Your task to perform on an android device: check the backup settings in the google photos Image 0: 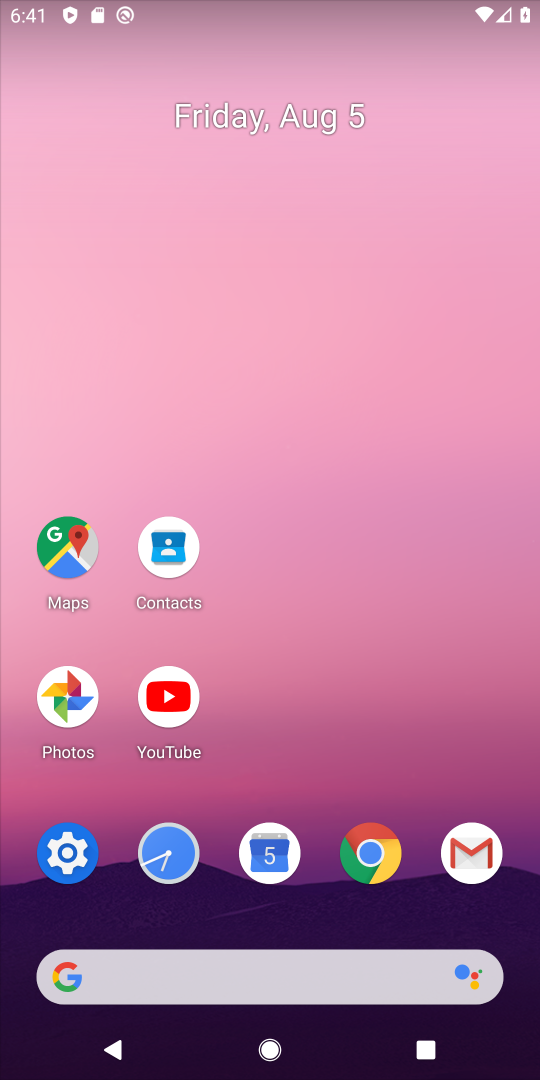
Step 0: click (66, 697)
Your task to perform on an android device: check the backup settings in the google photos Image 1: 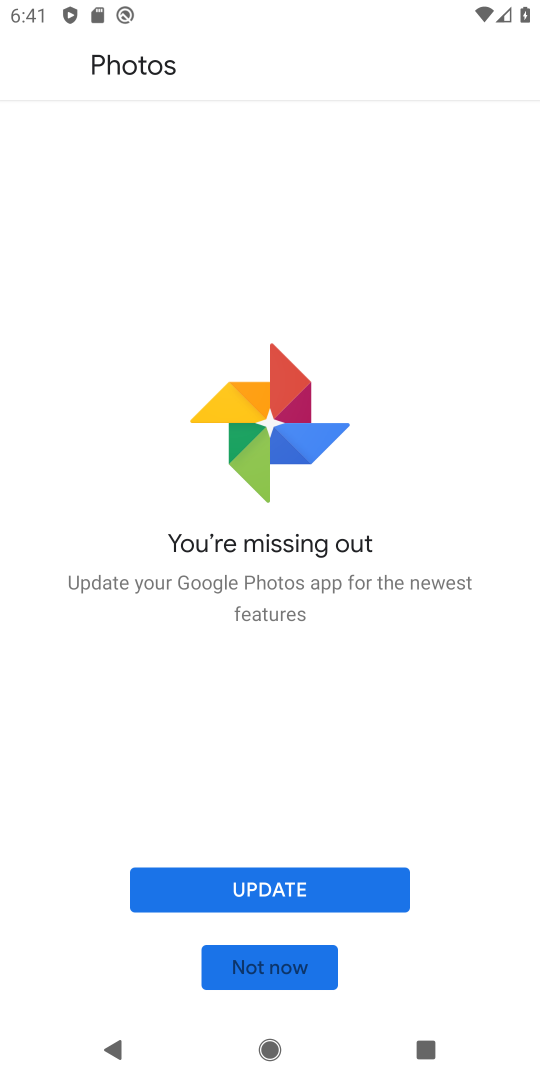
Step 1: click (271, 887)
Your task to perform on an android device: check the backup settings in the google photos Image 2: 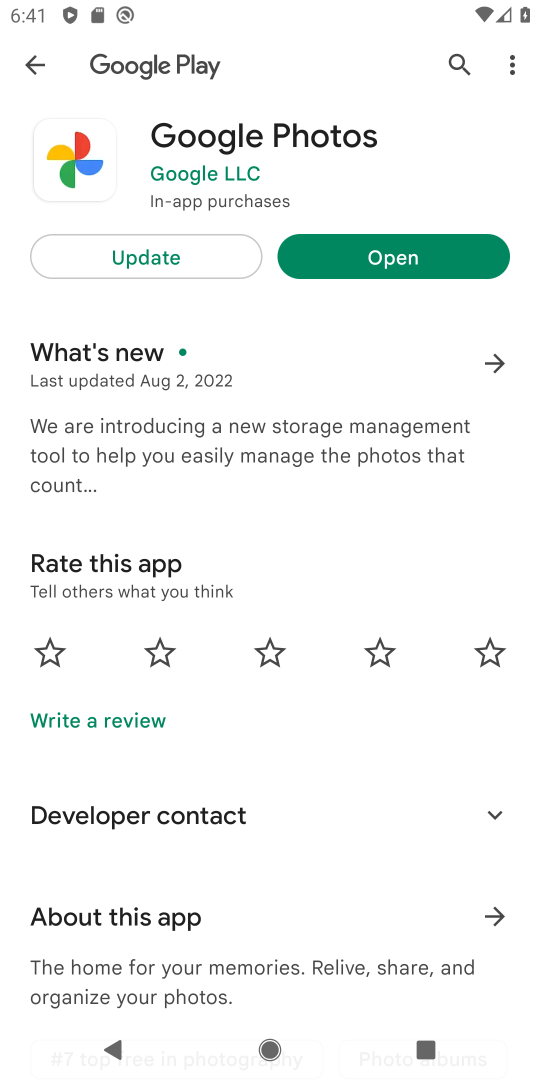
Step 2: click (134, 255)
Your task to perform on an android device: check the backup settings in the google photos Image 3: 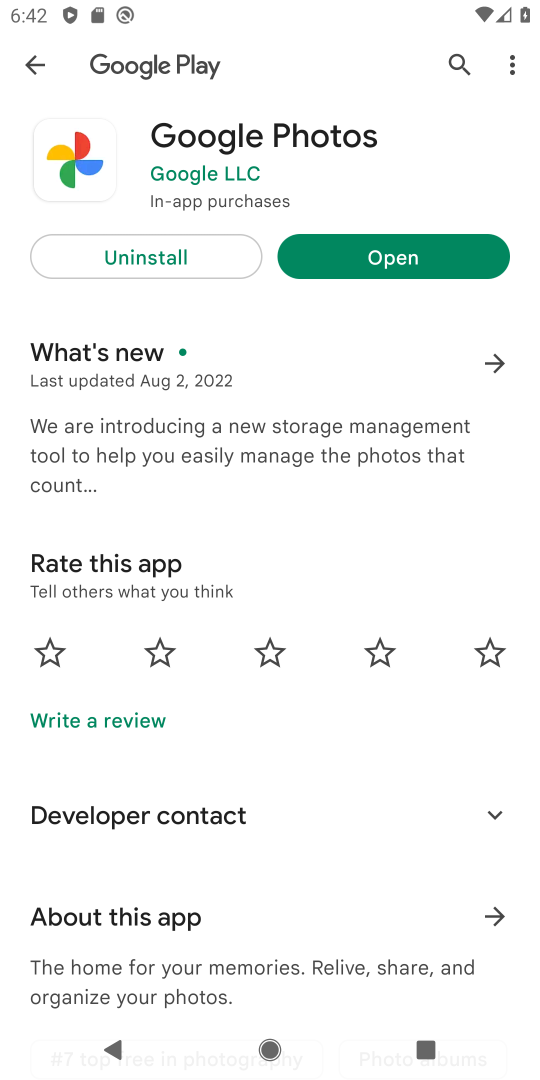
Step 3: click (344, 259)
Your task to perform on an android device: check the backup settings in the google photos Image 4: 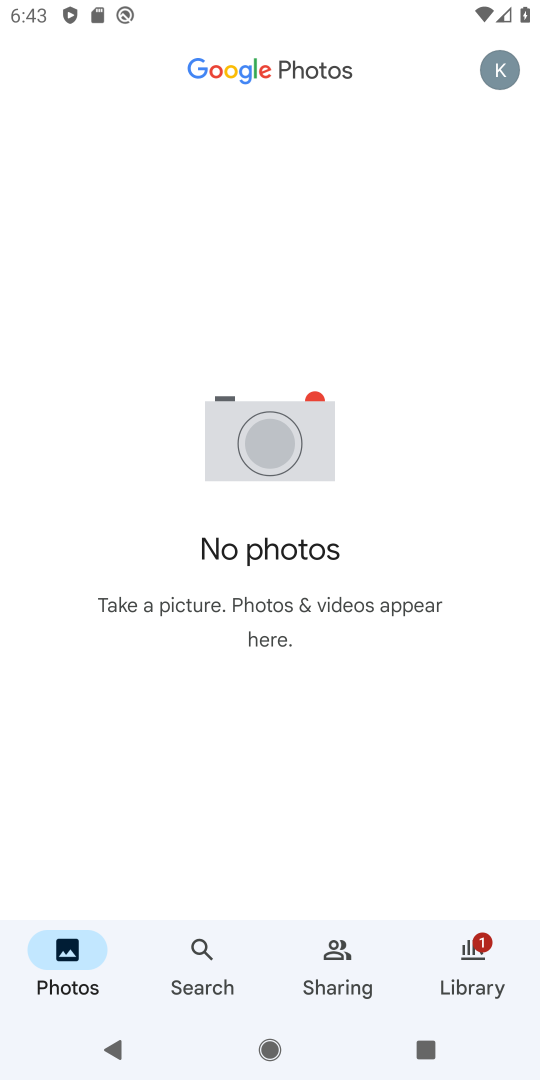
Step 4: click (507, 65)
Your task to perform on an android device: check the backup settings in the google photos Image 5: 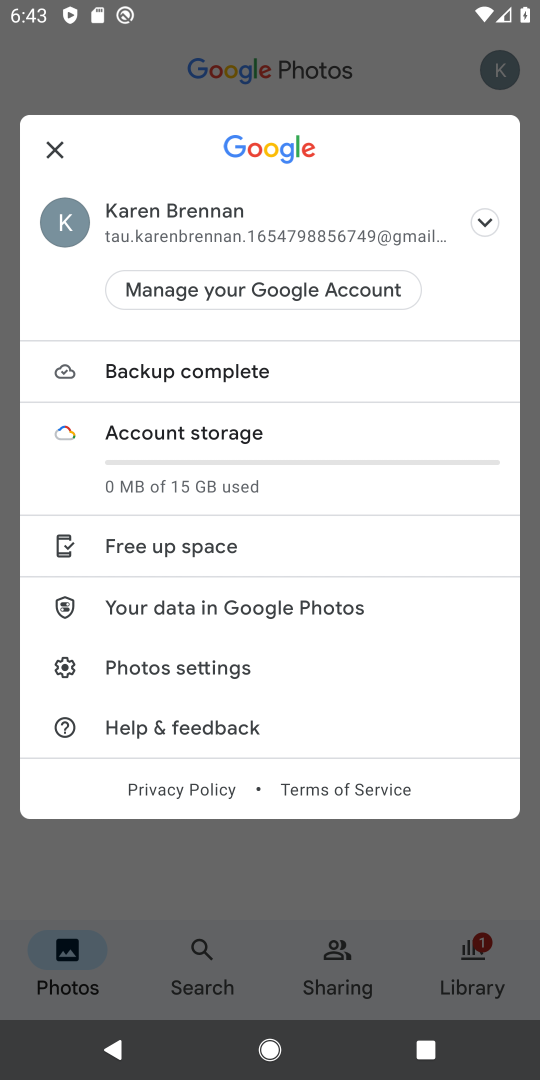
Step 5: click (189, 669)
Your task to perform on an android device: check the backup settings in the google photos Image 6: 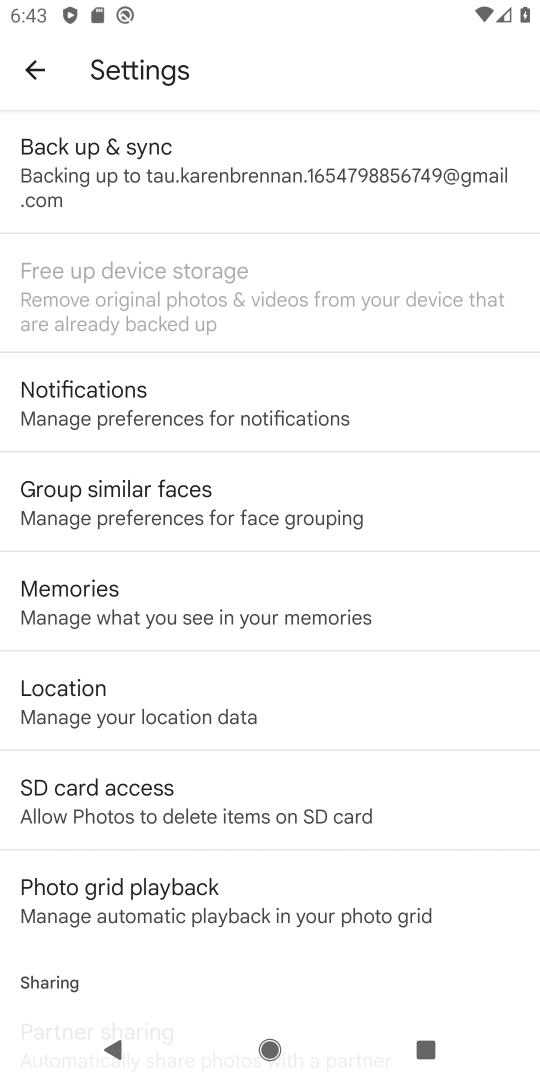
Step 6: click (102, 145)
Your task to perform on an android device: check the backup settings in the google photos Image 7: 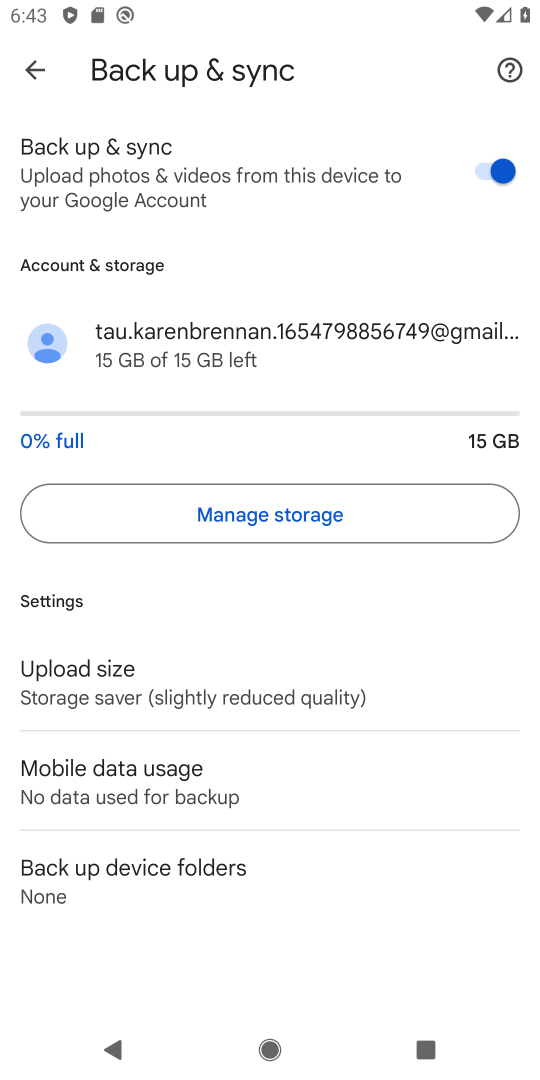
Step 7: task complete